Your task to perform on an android device: What is the recent news? Image 0: 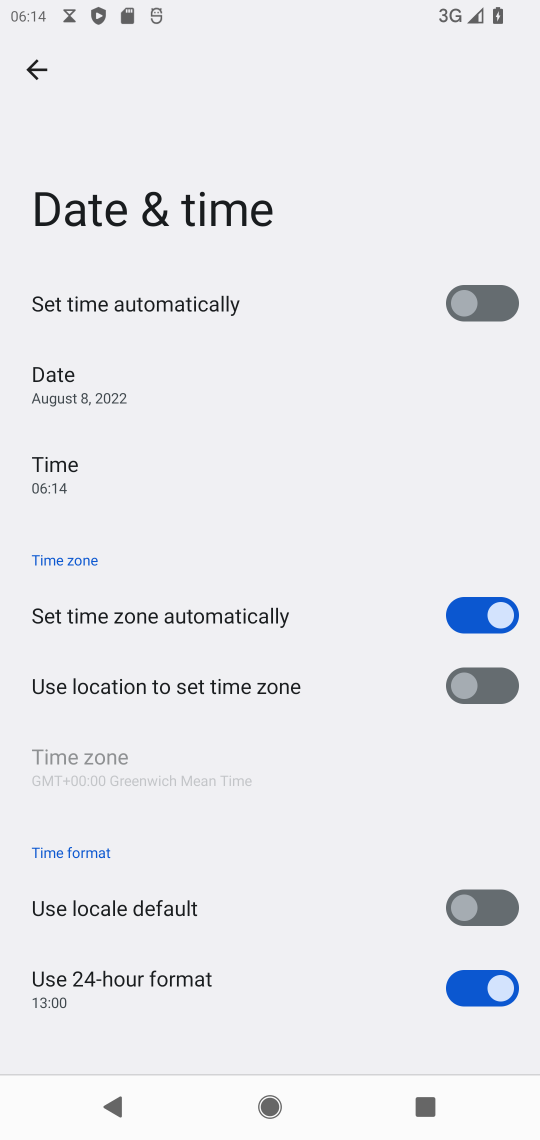
Step 0: press home button
Your task to perform on an android device: What is the recent news? Image 1: 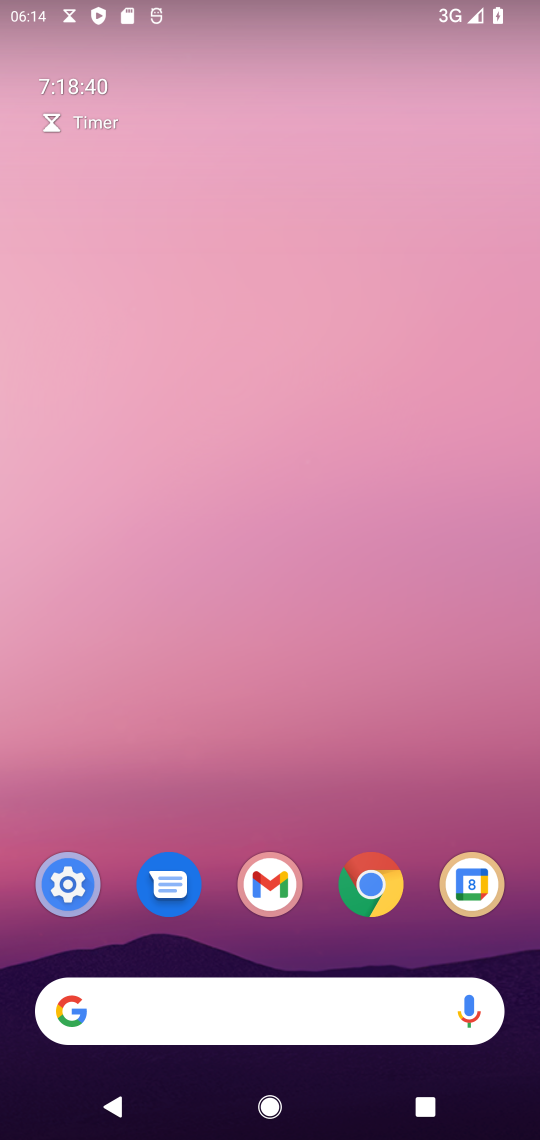
Step 1: click (372, 874)
Your task to perform on an android device: What is the recent news? Image 2: 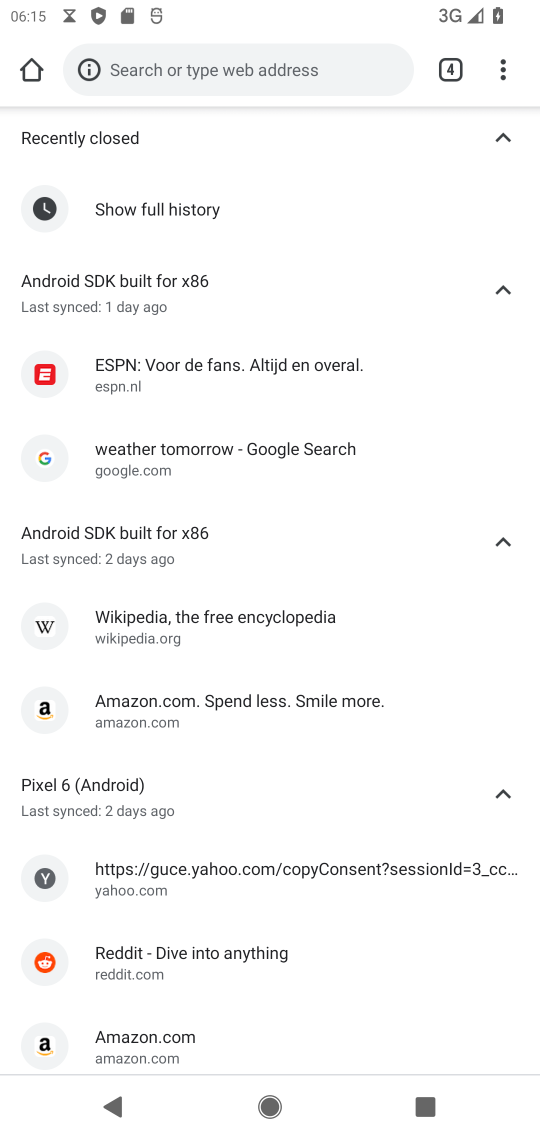
Step 2: click (328, 84)
Your task to perform on an android device: What is the recent news? Image 3: 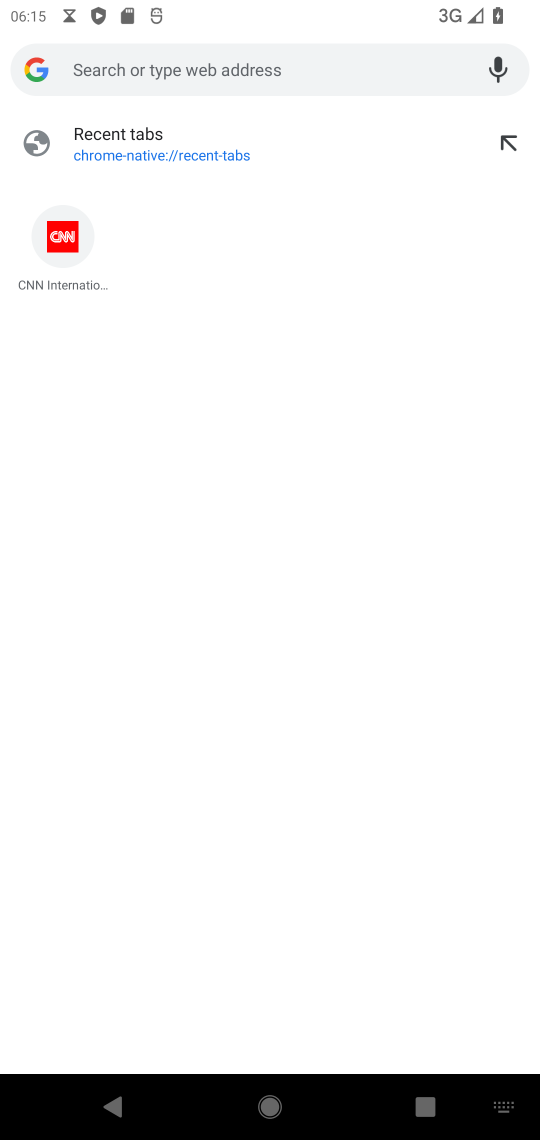
Step 3: type "What is the recent news?"
Your task to perform on an android device: What is the recent news? Image 4: 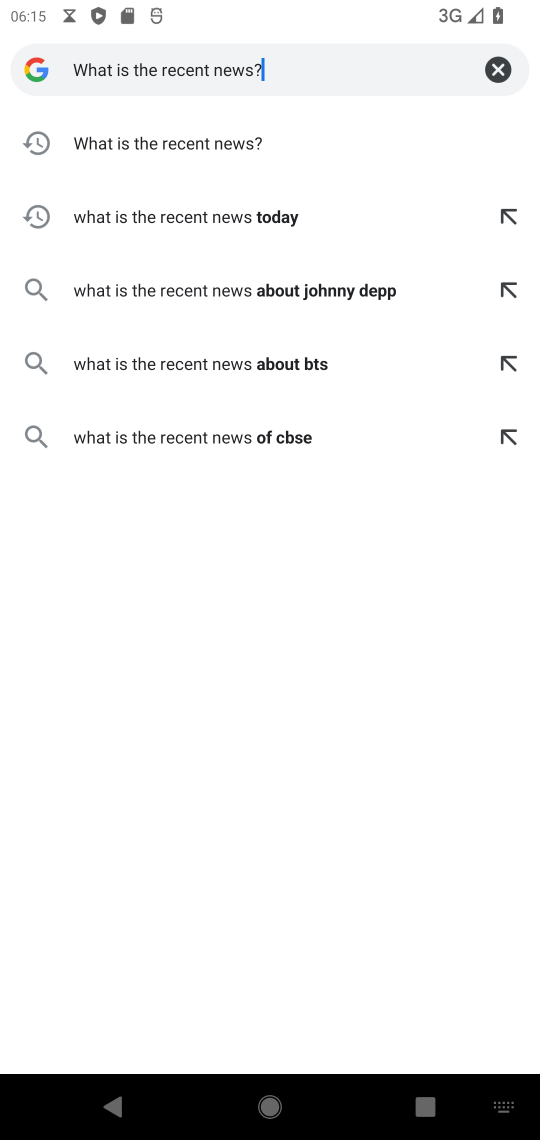
Step 4: click (308, 132)
Your task to perform on an android device: What is the recent news? Image 5: 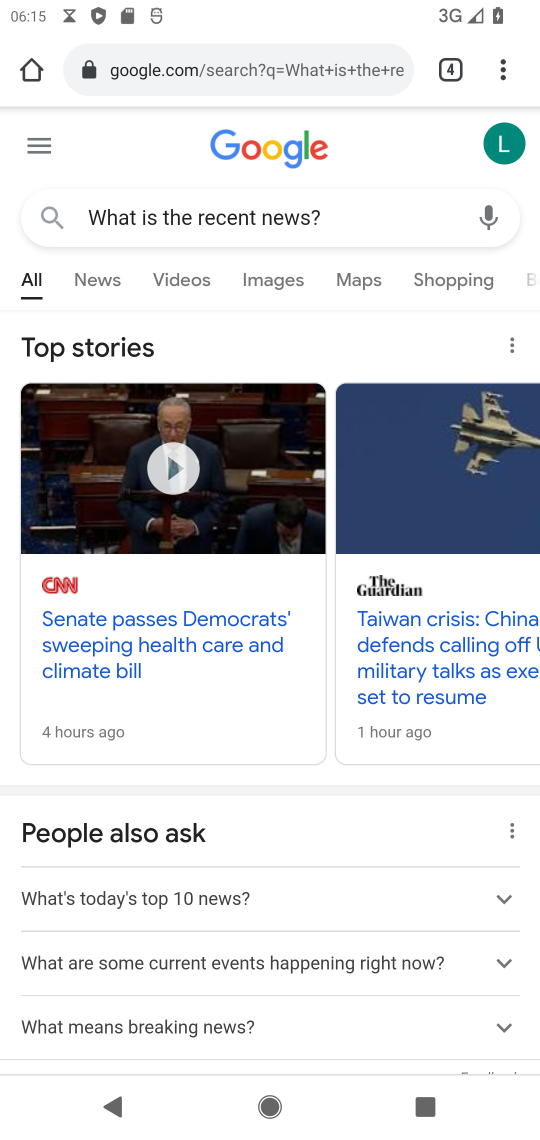
Step 5: task complete